Your task to perform on an android device: Open my contact list Image 0: 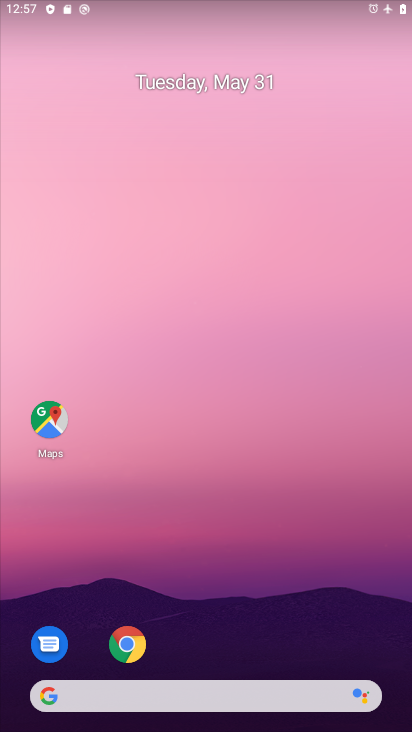
Step 0: drag from (237, 620) to (261, 249)
Your task to perform on an android device: Open my contact list Image 1: 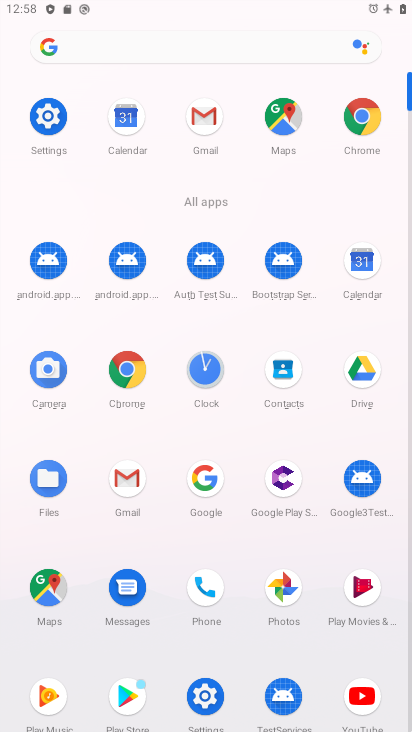
Step 1: click (290, 372)
Your task to perform on an android device: Open my contact list Image 2: 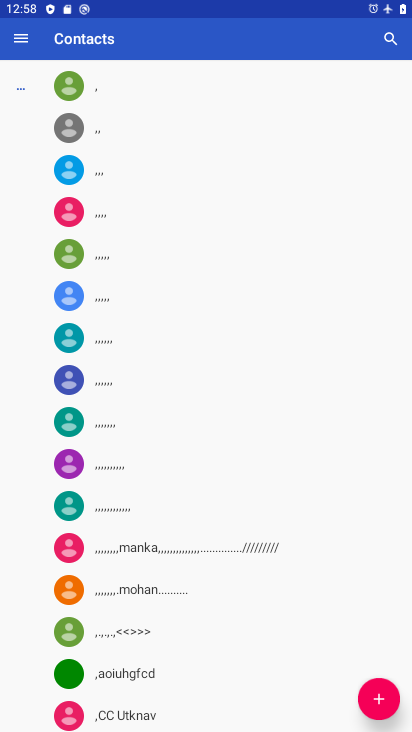
Step 2: task complete